Your task to perform on an android device: Open CNN.com Image 0: 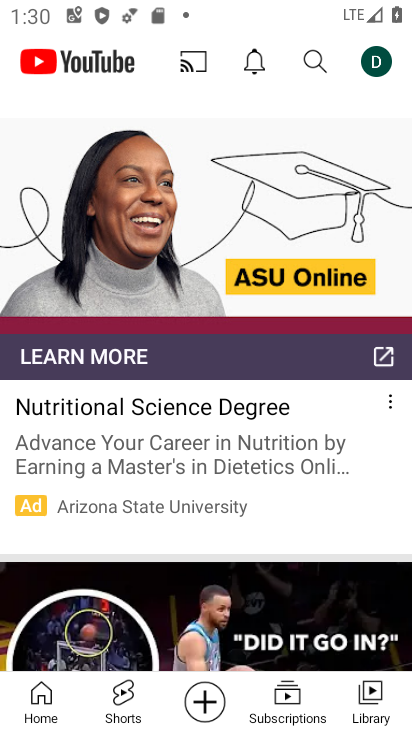
Step 0: press home button
Your task to perform on an android device: Open CNN.com Image 1: 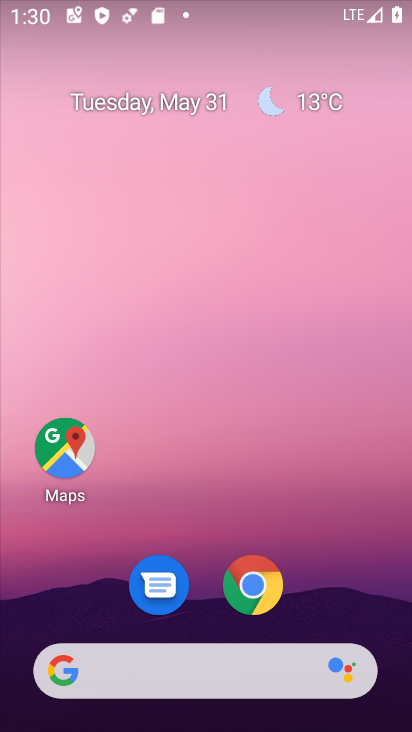
Step 1: click (247, 667)
Your task to perform on an android device: Open CNN.com Image 2: 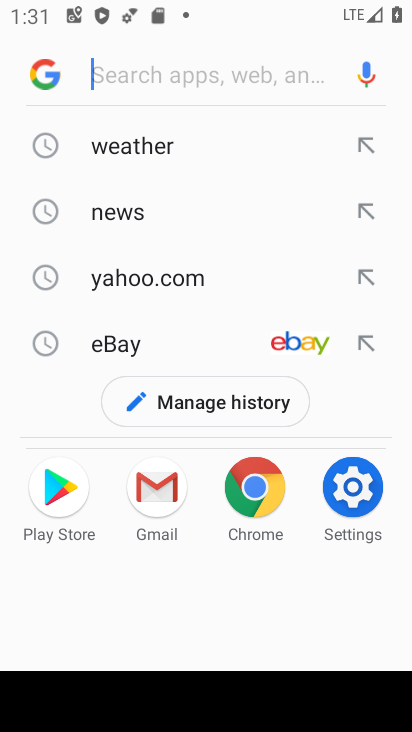
Step 2: type "cnn.com"
Your task to perform on an android device: Open CNN.com Image 3: 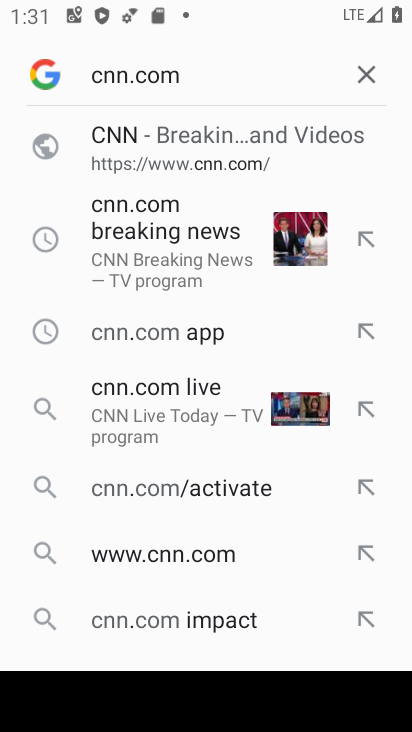
Step 3: click (132, 156)
Your task to perform on an android device: Open CNN.com Image 4: 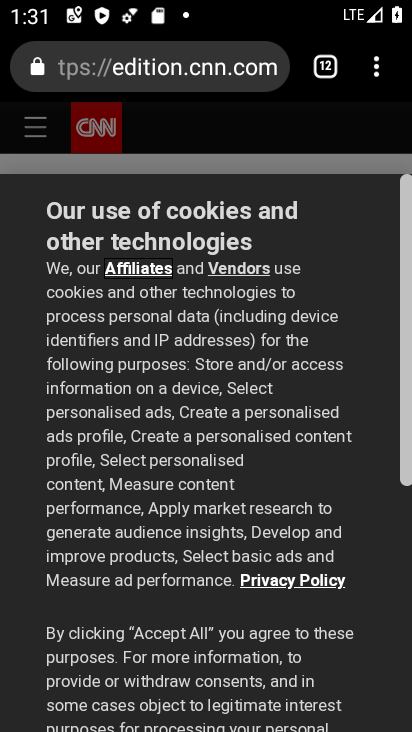
Step 4: task complete